Your task to perform on an android device: Open notification settings Image 0: 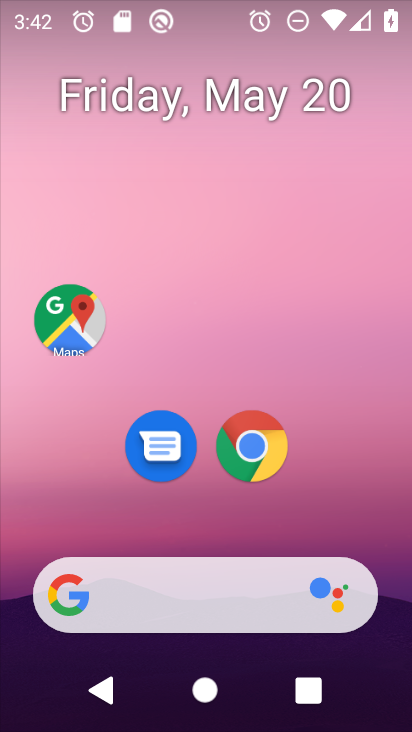
Step 0: drag from (363, 539) to (406, 248)
Your task to perform on an android device: Open notification settings Image 1: 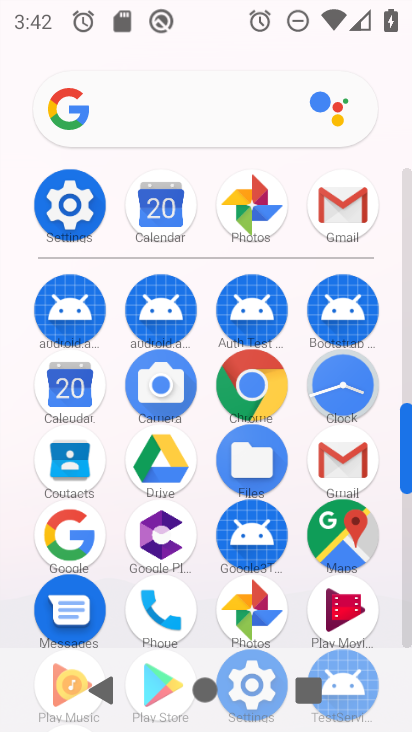
Step 1: click (72, 206)
Your task to perform on an android device: Open notification settings Image 2: 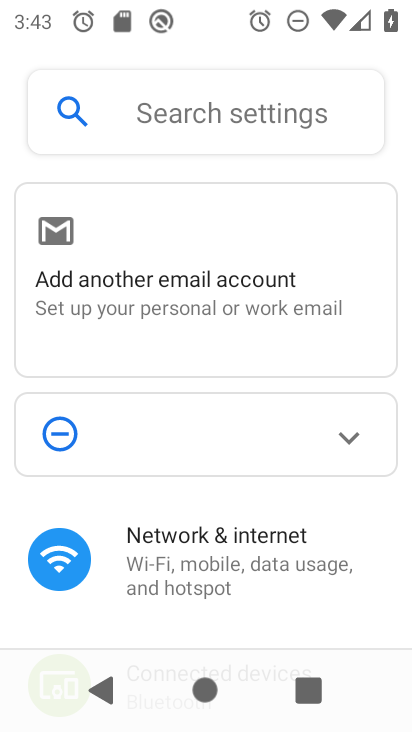
Step 2: drag from (238, 580) to (218, 187)
Your task to perform on an android device: Open notification settings Image 3: 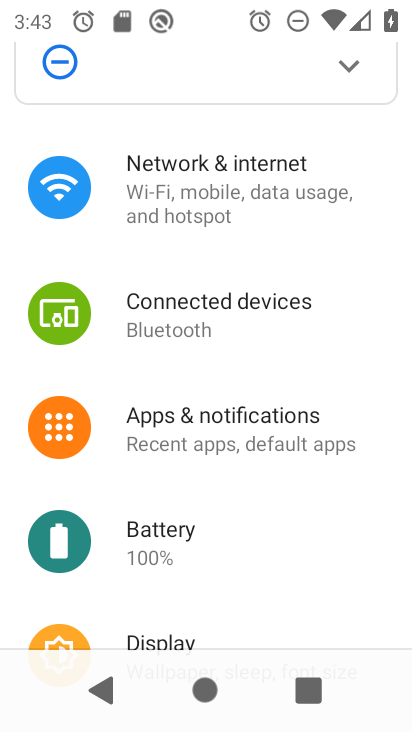
Step 3: click (197, 437)
Your task to perform on an android device: Open notification settings Image 4: 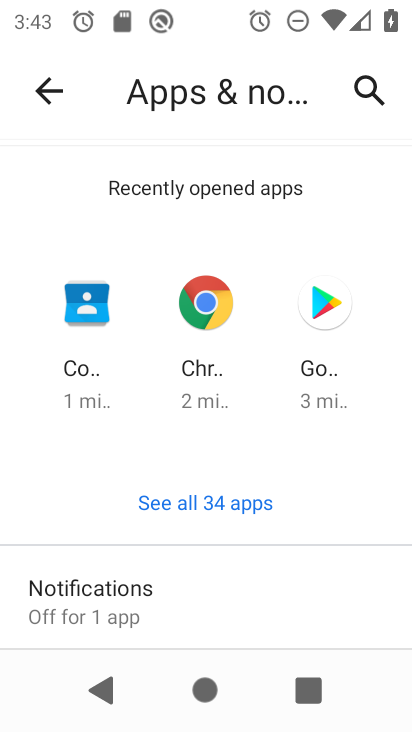
Step 4: task complete